Your task to perform on an android device: Open notification settings Image 0: 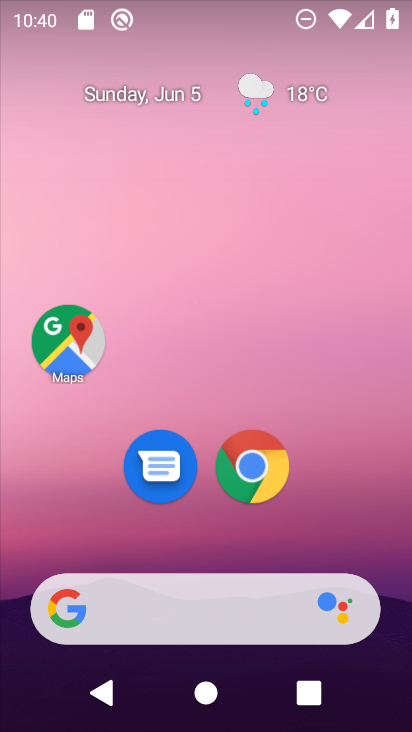
Step 0: drag from (368, 542) to (261, 12)
Your task to perform on an android device: Open notification settings Image 1: 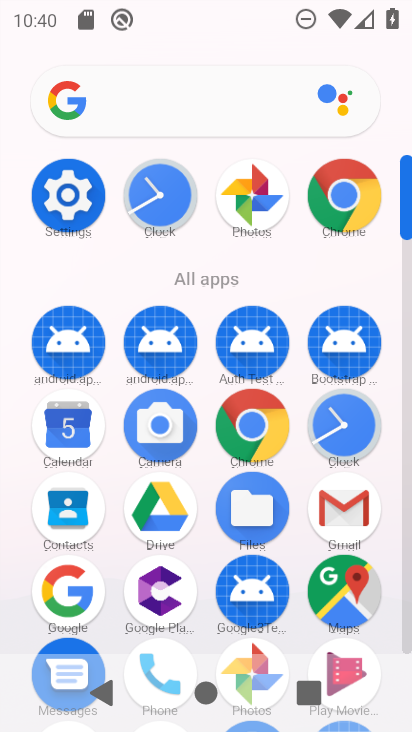
Step 1: click (66, 186)
Your task to perform on an android device: Open notification settings Image 2: 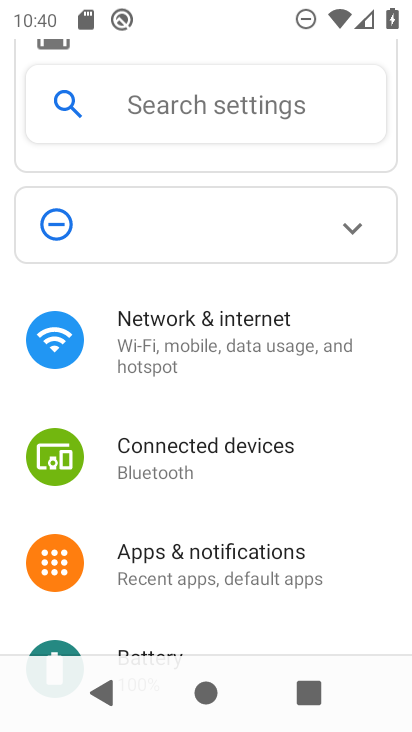
Step 2: drag from (327, 593) to (329, 237)
Your task to perform on an android device: Open notification settings Image 3: 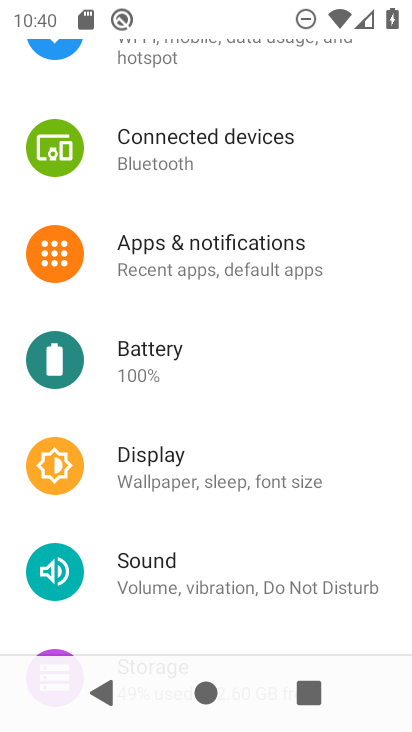
Step 3: drag from (297, 535) to (278, 176)
Your task to perform on an android device: Open notification settings Image 4: 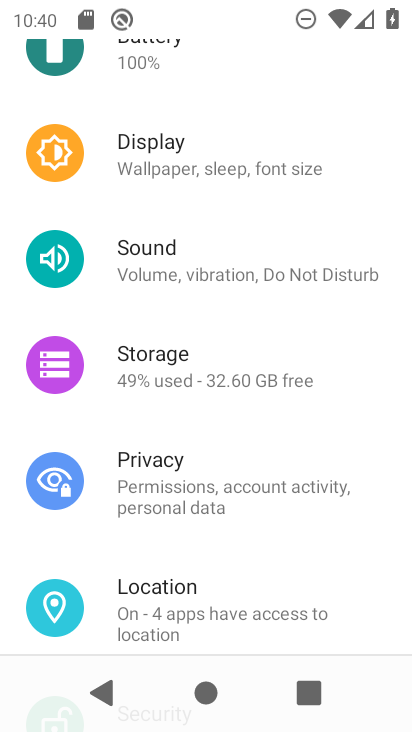
Step 4: drag from (314, 564) to (295, 125)
Your task to perform on an android device: Open notification settings Image 5: 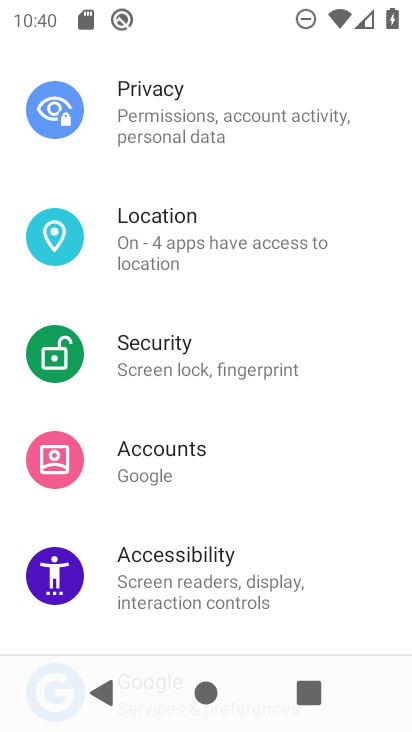
Step 5: drag from (293, 477) to (267, 61)
Your task to perform on an android device: Open notification settings Image 6: 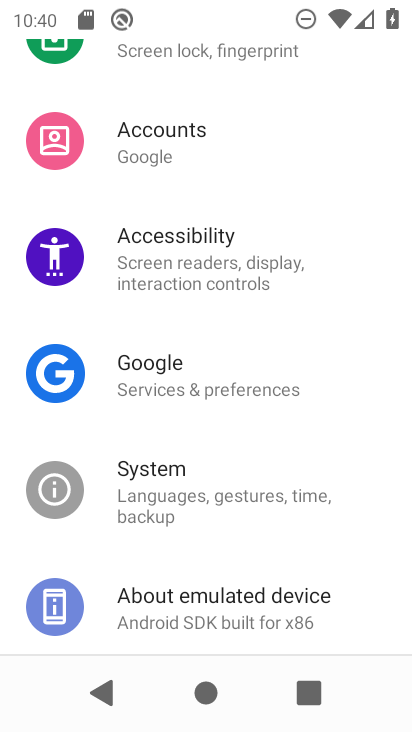
Step 6: drag from (315, 555) to (307, 120)
Your task to perform on an android device: Open notification settings Image 7: 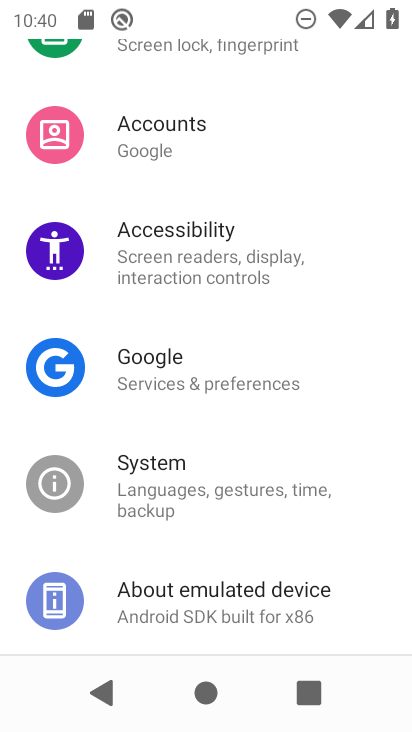
Step 7: drag from (307, 130) to (308, 555)
Your task to perform on an android device: Open notification settings Image 8: 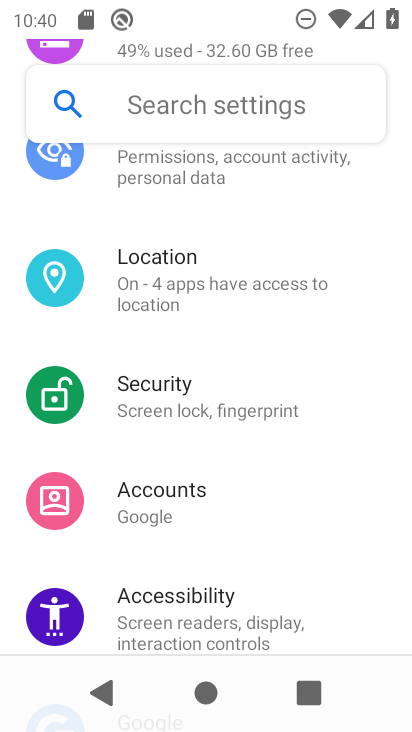
Step 8: drag from (330, 202) to (313, 605)
Your task to perform on an android device: Open notification settings Image 9: 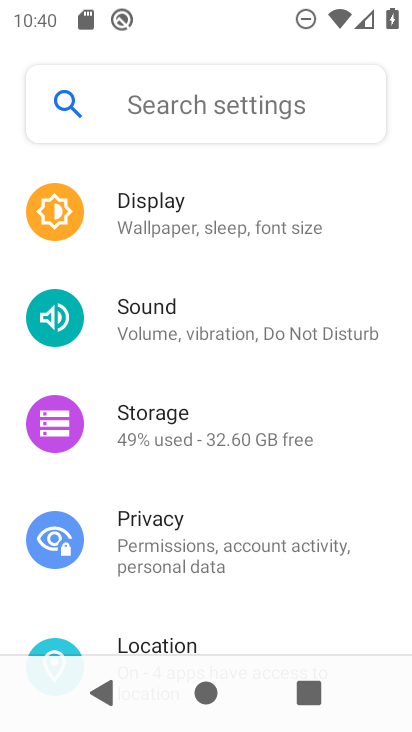
Step 9: drag from (309, 269) to (307, 624)
Your task to perform on an android device: Open notification settings Image 10: 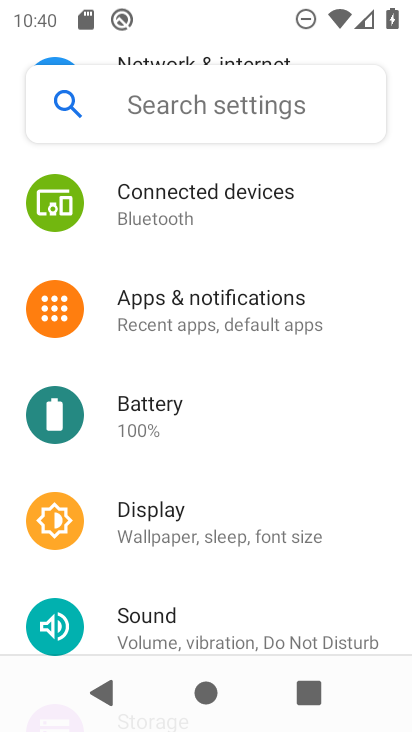
Step 10: click (268, 297)
Your task to perform on an android device: Open notification settings Image 11: 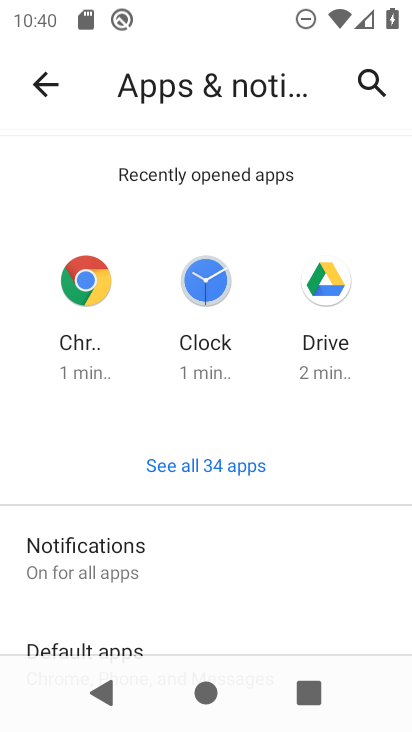
Step 11: drag from (269, 606) to (273, 172)
Your task to perform on an android device: Open notification settings Image 12: 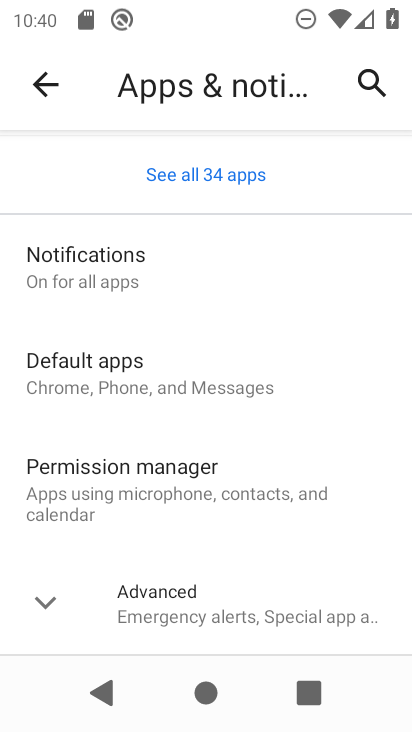
Step 12: drag from (240, 563) to (224, 145)
Your task to perform on an android device: Open notification settings Image 13: 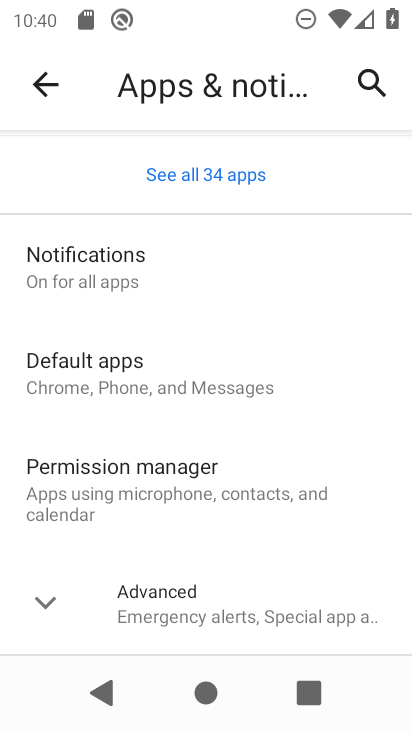
Step 13: click (44, 610)
Your task to perform on an android device: Open notification settings Image 14: 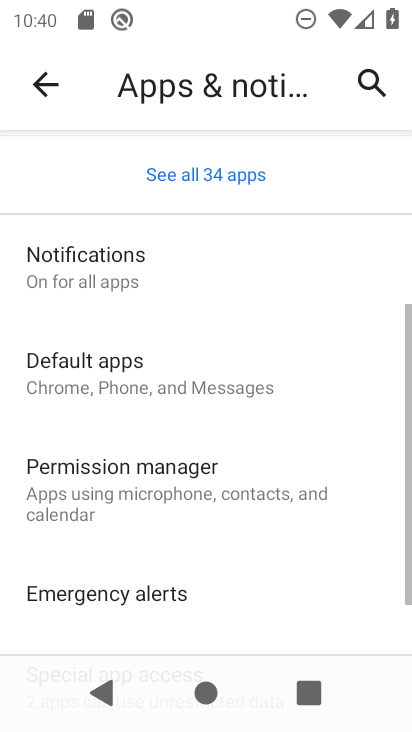
Step 14: task complete